Your task to perform on an android device: check android version Image 0: 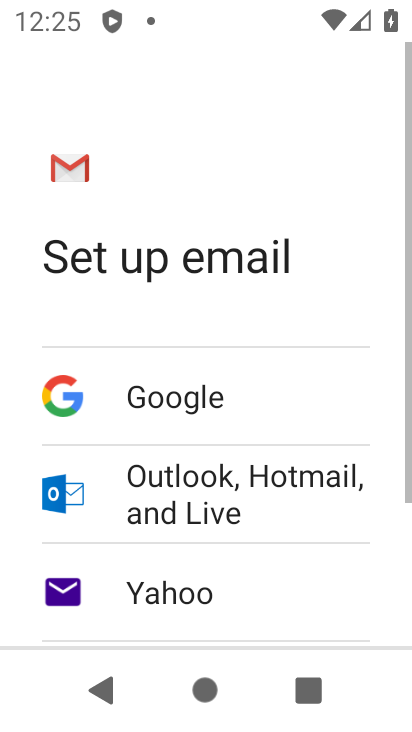
Step 0: press home button
Your task to perform on an android device: check android version Image 1: 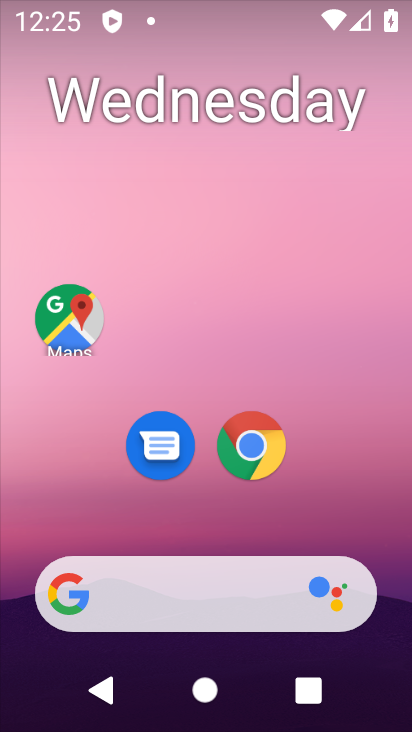
Step 1: drag from (249, 620) to (240, 146)
Your task to perform on an android device: check android version Image 2: 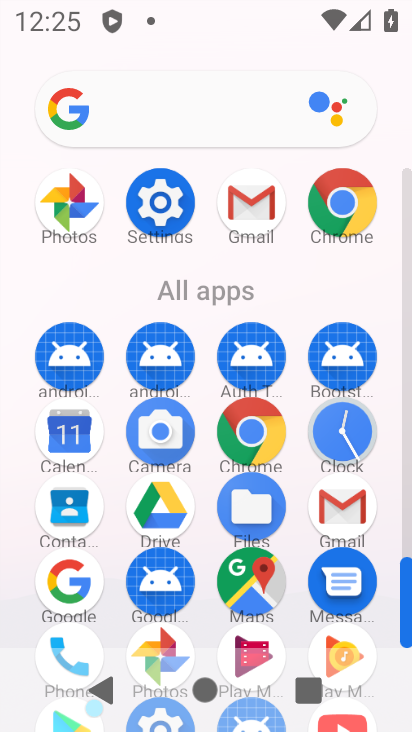
Step 2: click (158, 203)
Your task to perform on an android device: check android version Image 3: 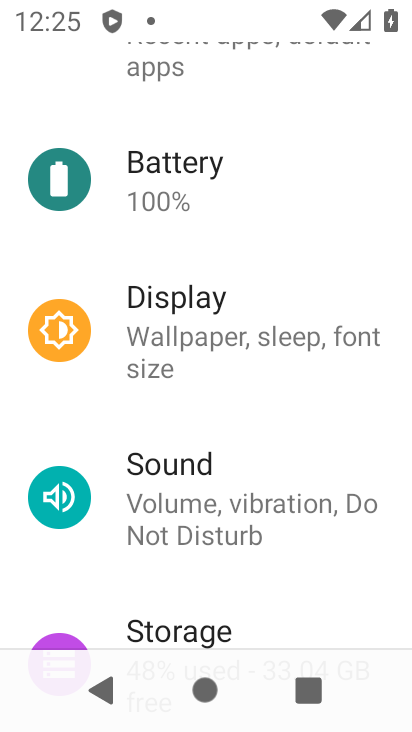
Step 3: drag from (270, 501) to (253, 1)
Your task to perform on an android device: check android version Image 4: 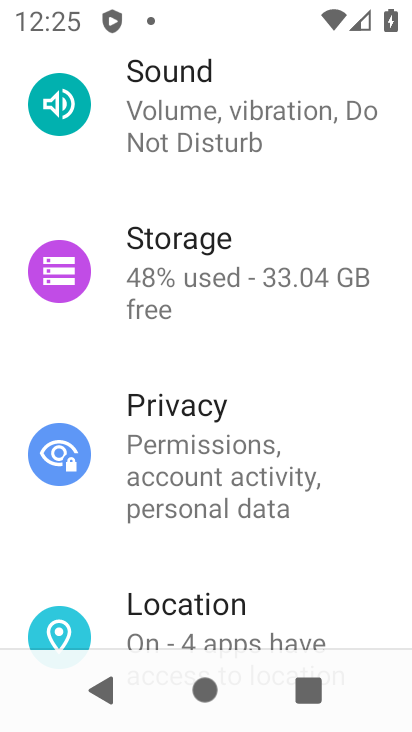
Step 4: drag from (235, 521) to (227, 83)
Your task to perform on an android device: check android version Image 5: 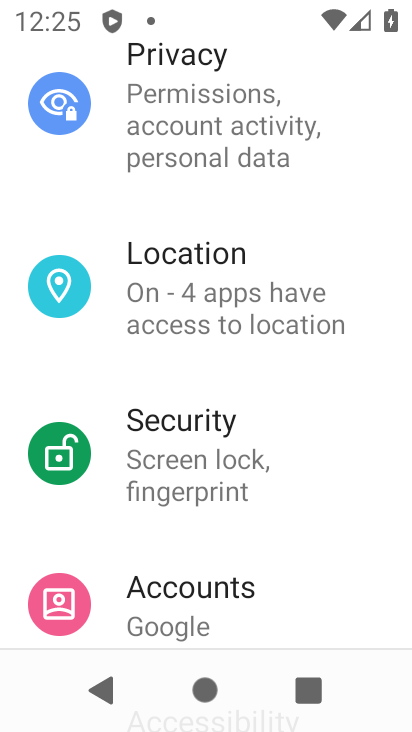
Step 5: drag from (271, 483) to (238, 13)
Your task to perform on an android device: check android version Image 6: 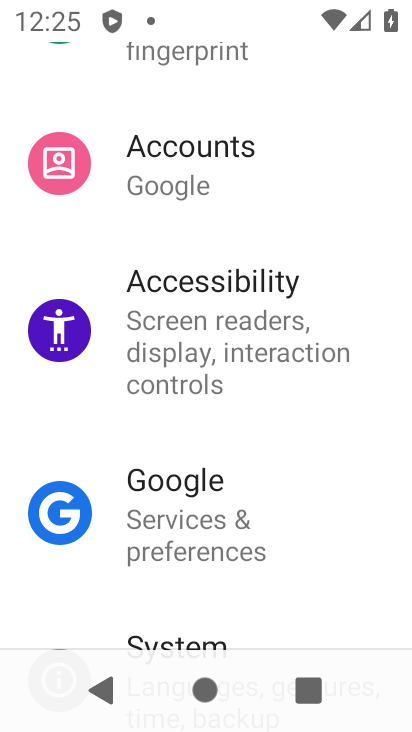
Step 6: drag from (268, 476) to (231, 60)
Your task to perform on an android device: check android version Image 7: 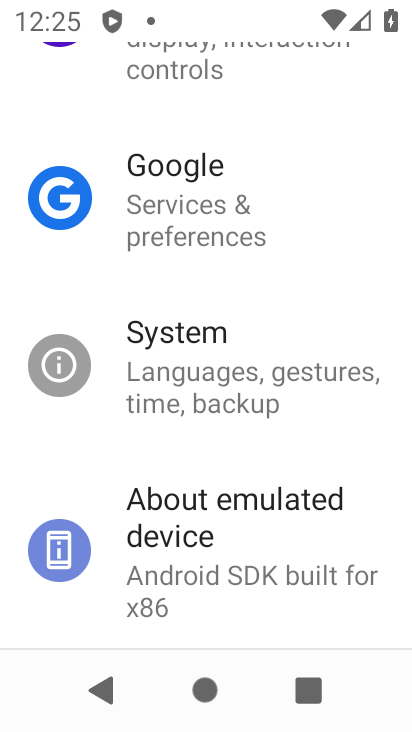
Step 7: click (222, 533)
Your task to perform on an android device: check android version Image 8: 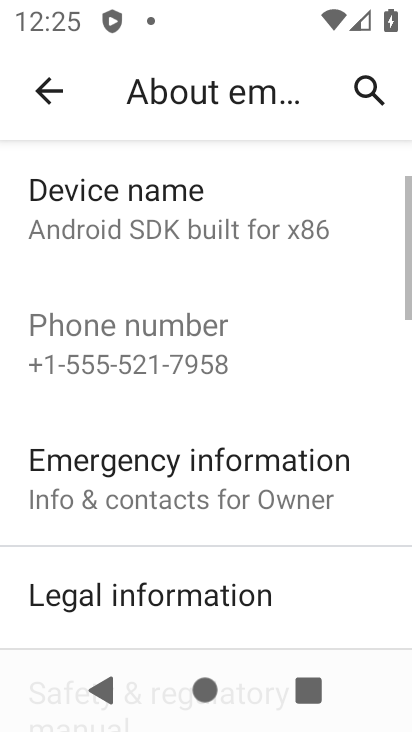
Step 8: drag from (204, 531) to (245, 90)
Your task to perform on an android device: check android version Image 9: 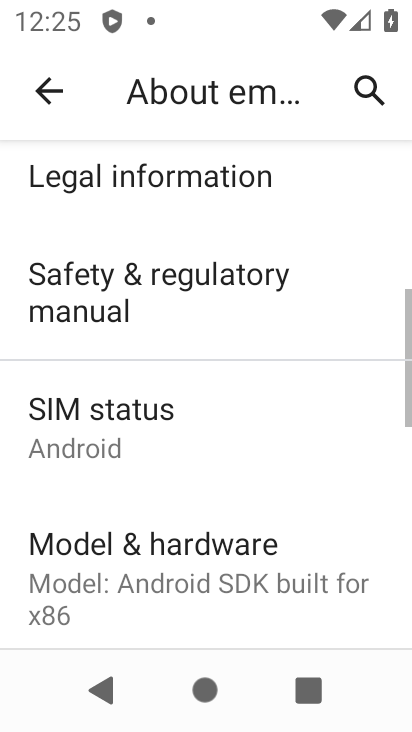
Step 9: drag from (192, 471) to (196, 274)
Your task to perform on an android device: check android version Image 10: 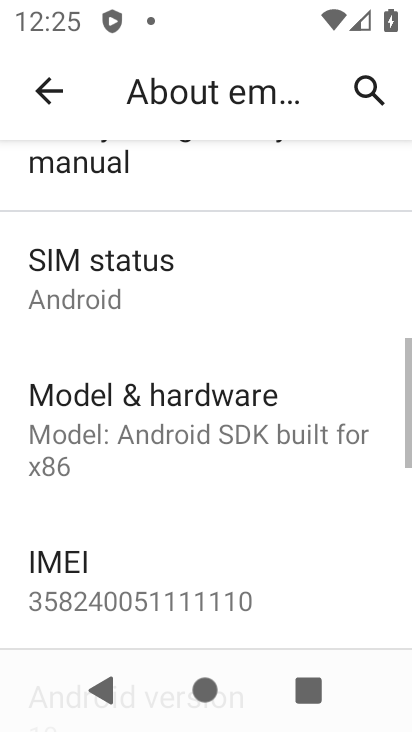
Step 10: drag from (153, 574) to (175, 158)
Your task to perform on an android device: check android version Image 11: 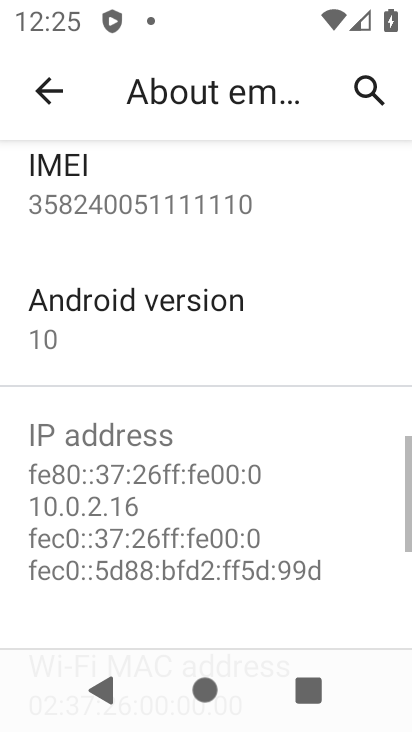
Step 11: click (134, 336)
Your task to perform on an android device: check android version Image 12: 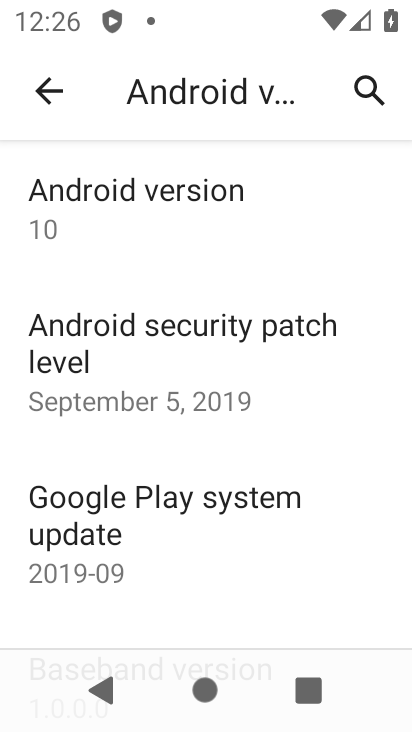
Step 12: task complete